Your task to perform on an android device: Do I have any events this weekend? Image 0: 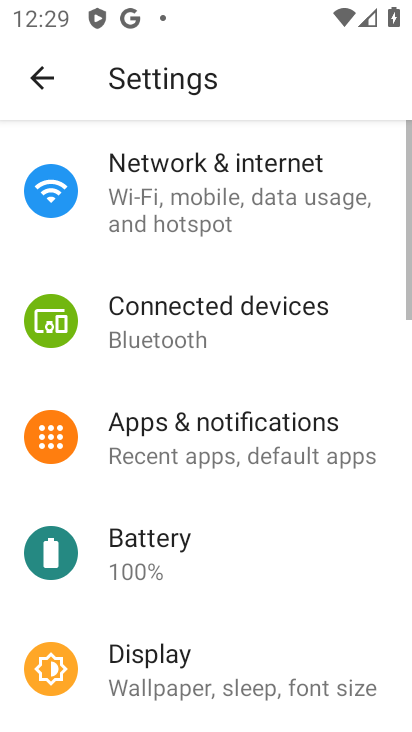
Step 0: press home button
Your task to perform on an android device: Do I have any events this weekend? Image 1: 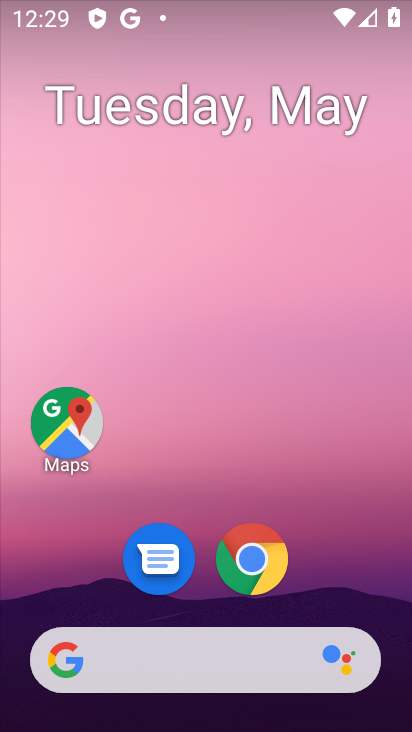
Step 1: click (176, 101)
Your task to perform on an android device: Do I have any events this weekend? Image 2: 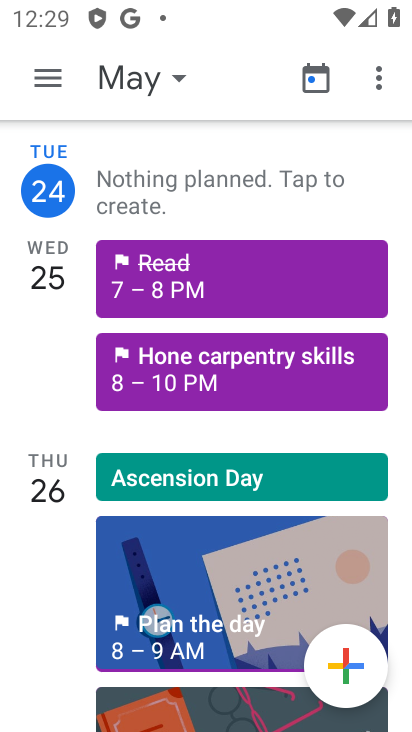
Step 2: click (54, 68)
Your task to perform on an android device: Do I have any events this weekend? Image 3: 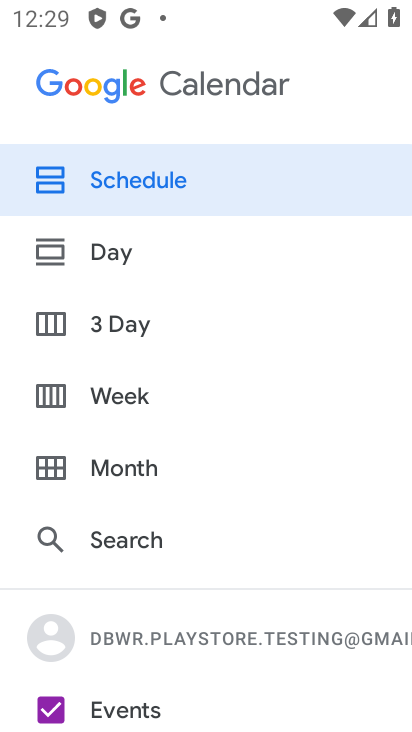
Step 3: click (71, 407)
Your task to perform on an android device: Do I have any events this weekend? Image 4: 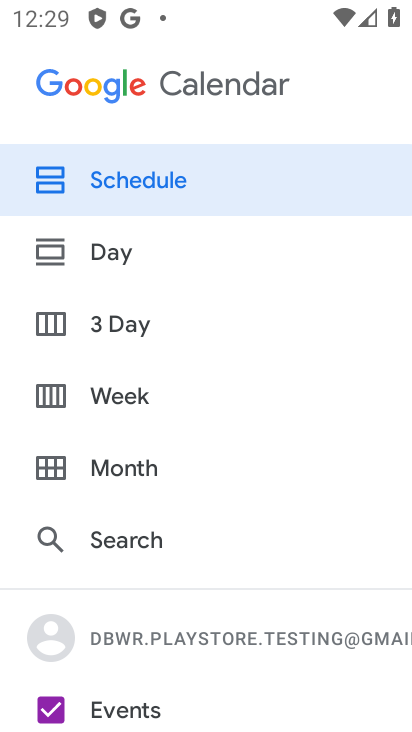
Step 4: click (71, 407)
Your task to perform on an android device: Do I have any events this weekend? Image 5: 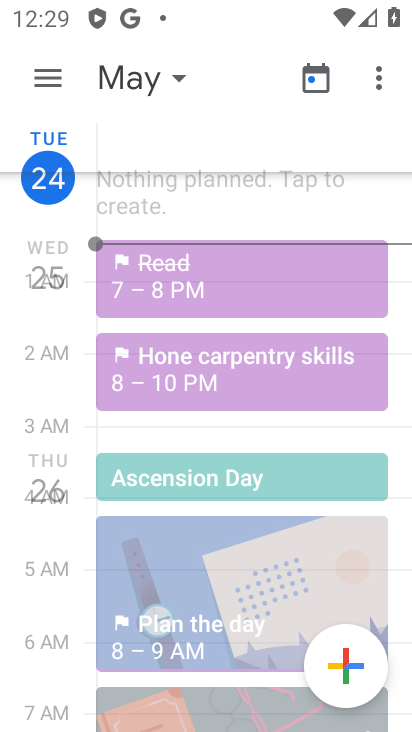
Step 5: click (71, 407)
Your task to perform on an android device: Do I have any events this weekend? Image 6: 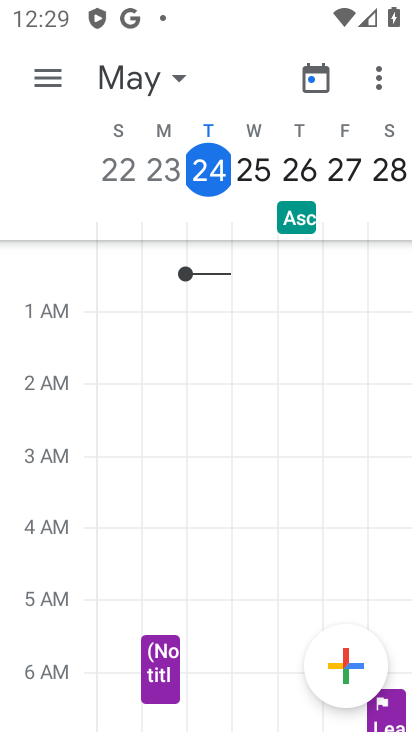
Step 6: task complete